Your task to perform on an android device: Open Yahoo.com Image 0: 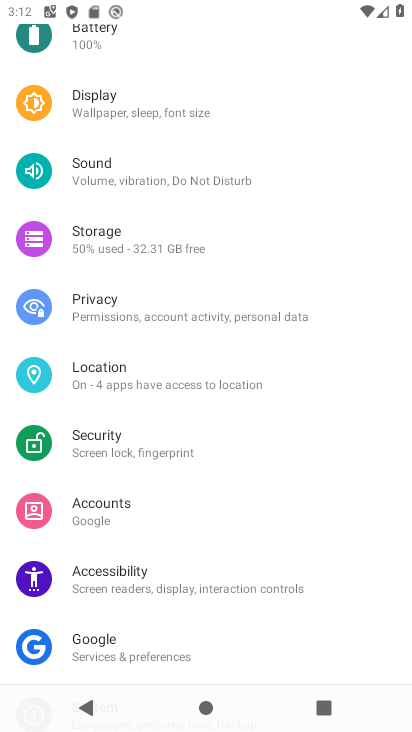
Step 0: press home button
Your task to perform on an android device: Open Yahoo.com Image 1: 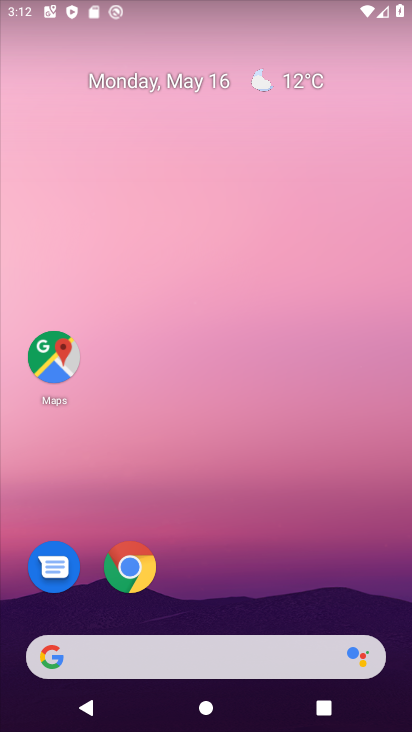
Step 1: click (129, 560)
Your task to perform on an android device: Open Yahoo.com Image 2: 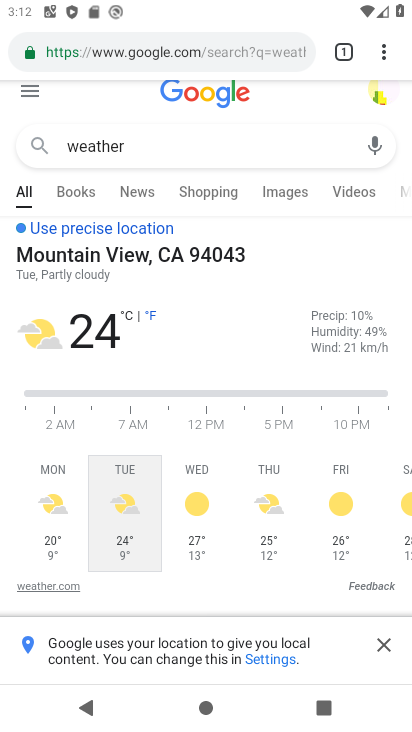
Step 2: click (208, 54)
Your task to perform on an android device: Open Yahoo.com Image 3: 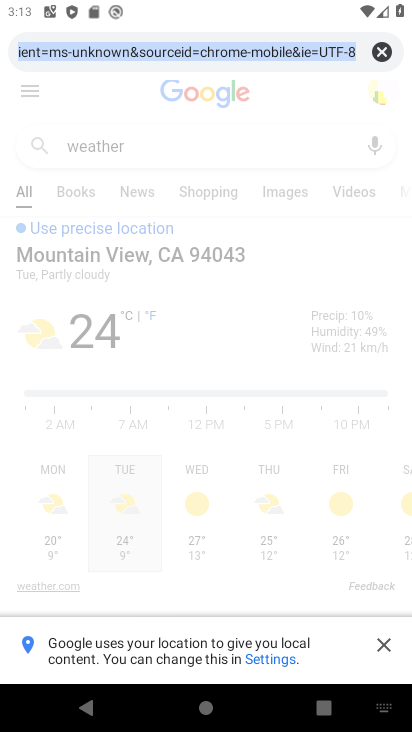
Step 3: type "yahoo.com"
Your task to perform on an android device: Open Yahoo.com Image 4: 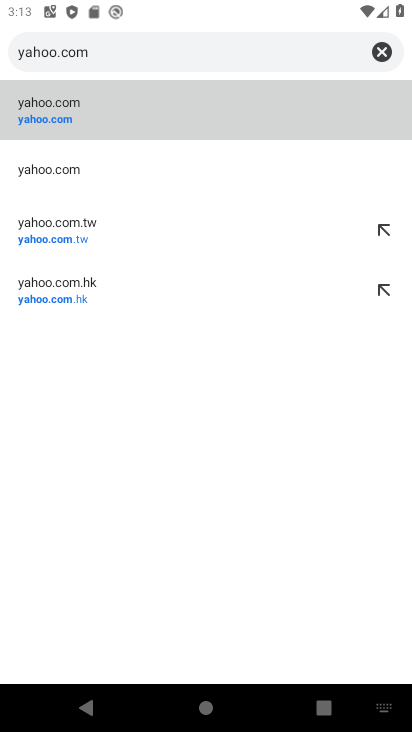
Step 4: click (61, 114)
Your task to perform on an android device: Open Yahoo.com Image 5: 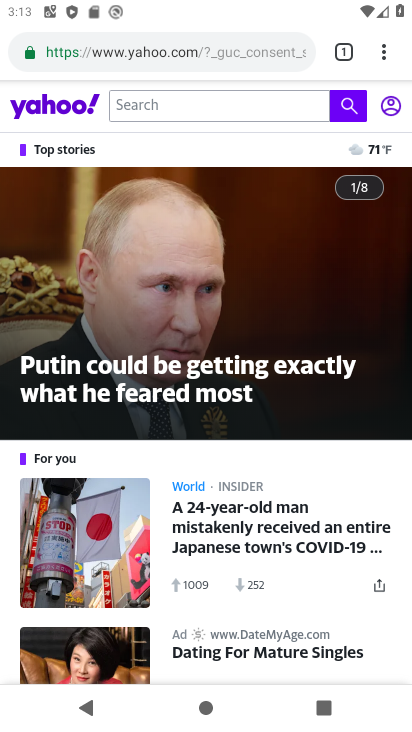
Step 5: task complete